Your task to perform on an android device: change your default location settings in chrome Image 0: 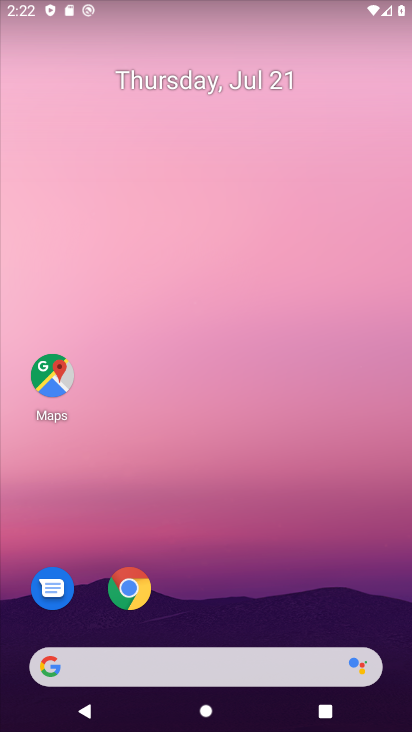
Step 0: click (125, 591)
Your task to perform on an android device: change your default location settings in chrome Image 1: 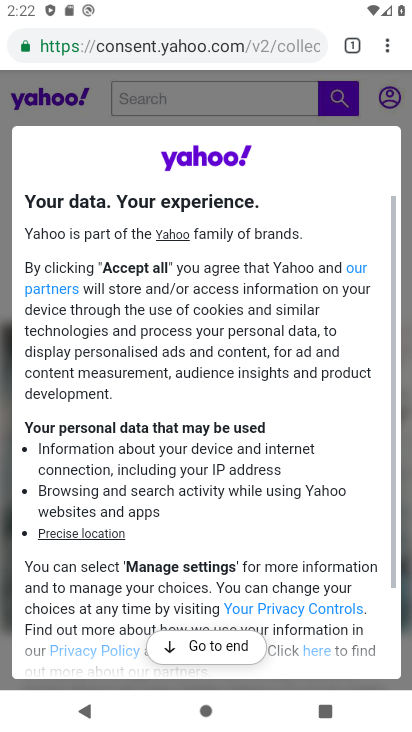
Step 1: click (391, 42)
Your task to perform on an android device: change your default location settings in chrome Image 2: 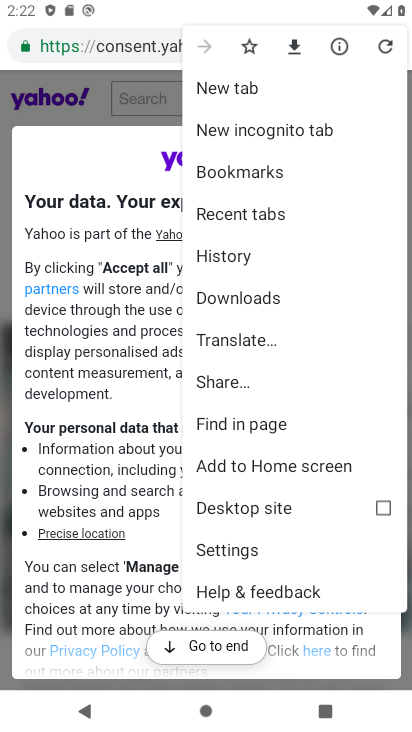
Step 2: click (236, 547)
Your task to perform on an android device: change your default location settings in chrome Image 3: 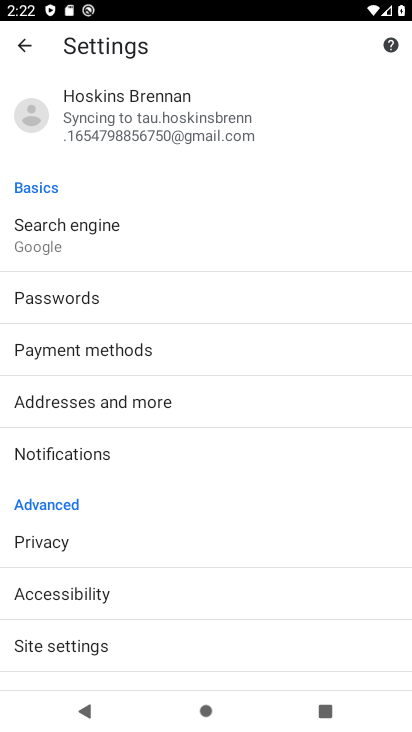
Step 3: click (86, 646)
Your task to perform on an android device: change your default location settings in chrome Image 4: 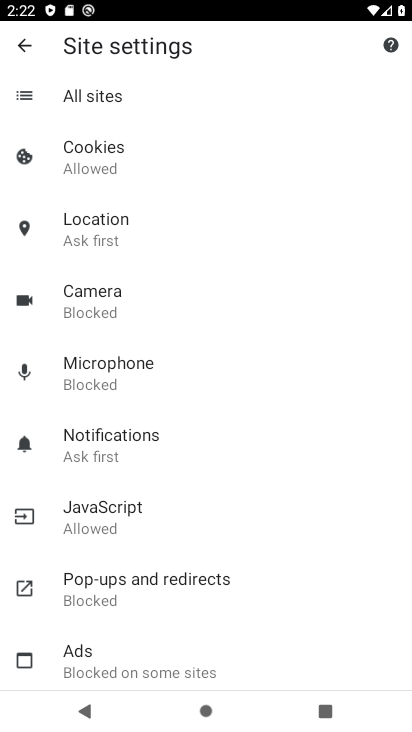
Step 4: click (91, 220)
Your task to perform on an android device: change your default location settings in chrome Image 5: 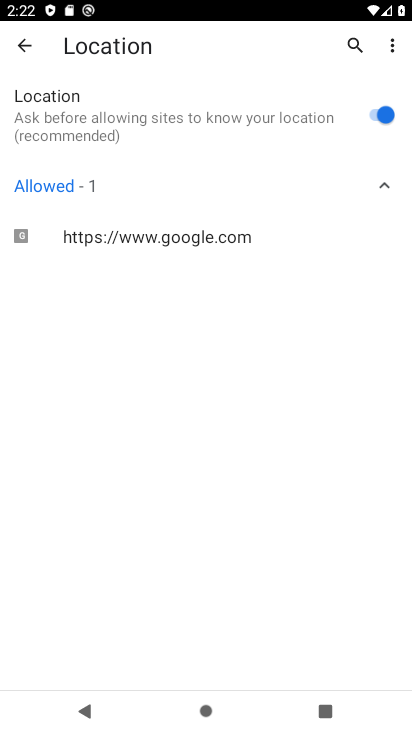
Step 5: click (384, 108)
Your task to perform on an android device: change your default location settings in chrome Image 6: 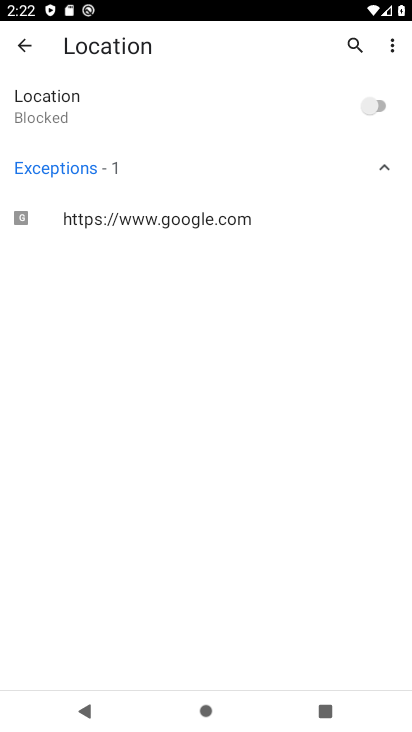
Step 6: task complete